Your task to perform on an android device: add a contact in the contacts app Image 0: 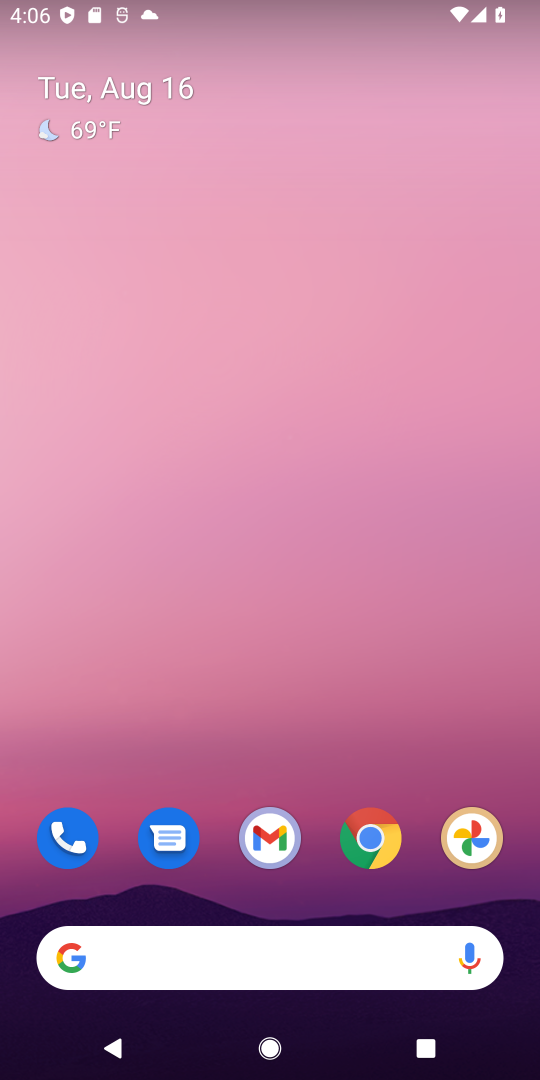
Step 0: drag from (258, 925) to (310, 488)
Your task to perform on an android device: add a contact in the contacts app Image 1: 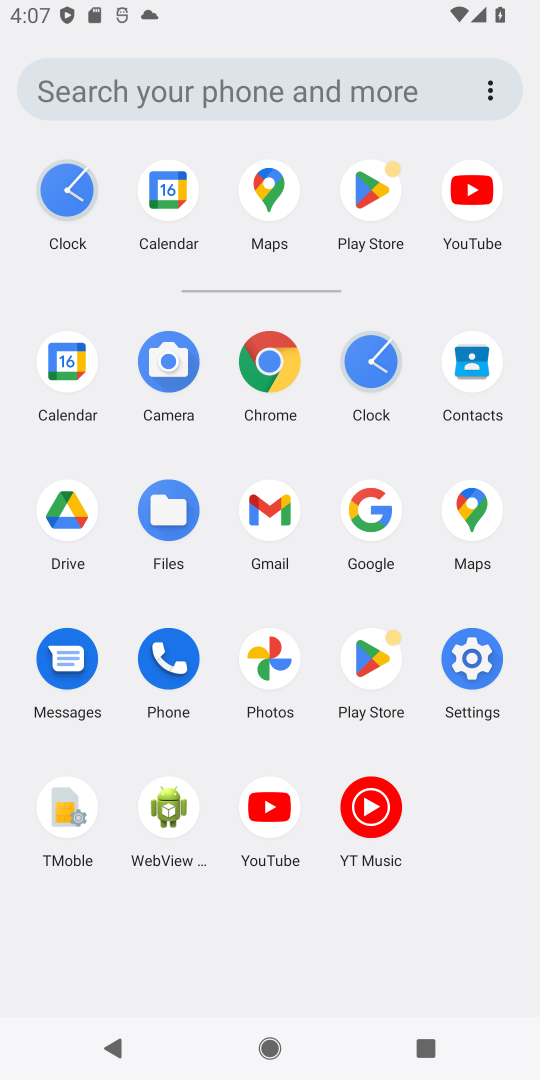
Step 1: click (491, 372)
Your task to perform on an android device: add a contact in the contacts app Image 2: 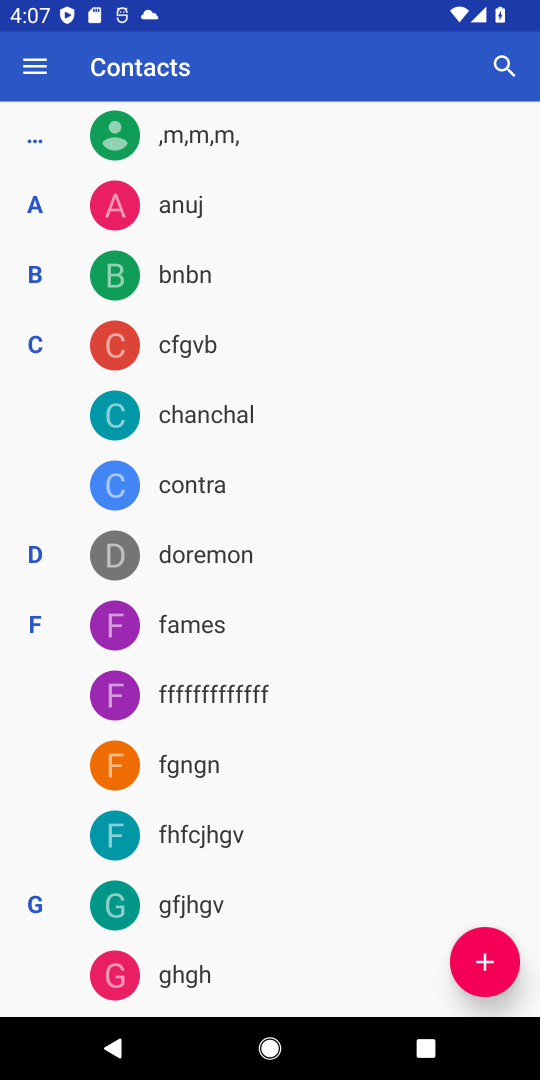
Step 2: click (491, 962)
Your task to perform on an android device: add a contact in the contacts app Image 3: 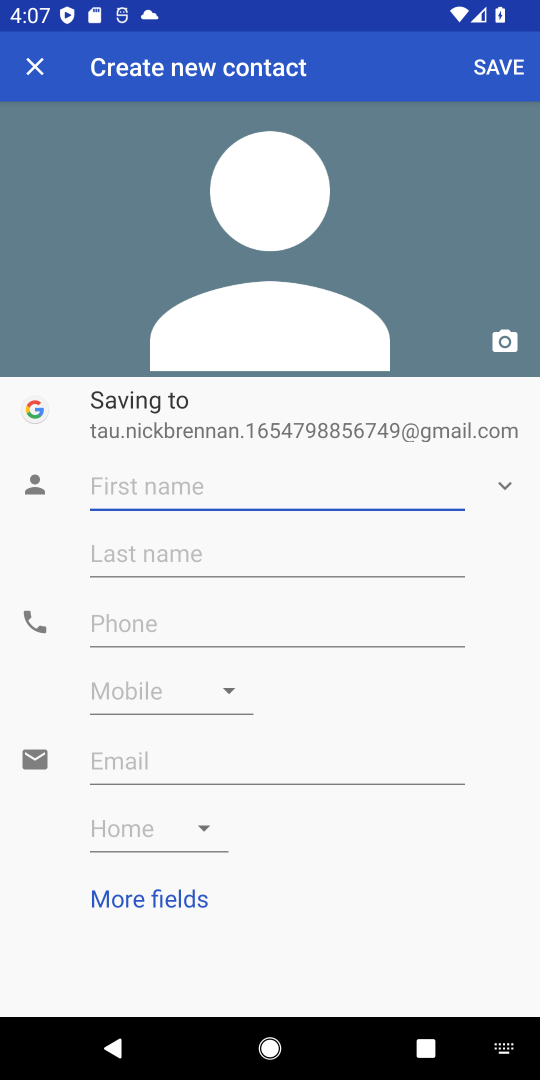
Step 3: type "cvvnfgnf"
Your task to perform on an android device: add a contact in the contacts app Image 4: 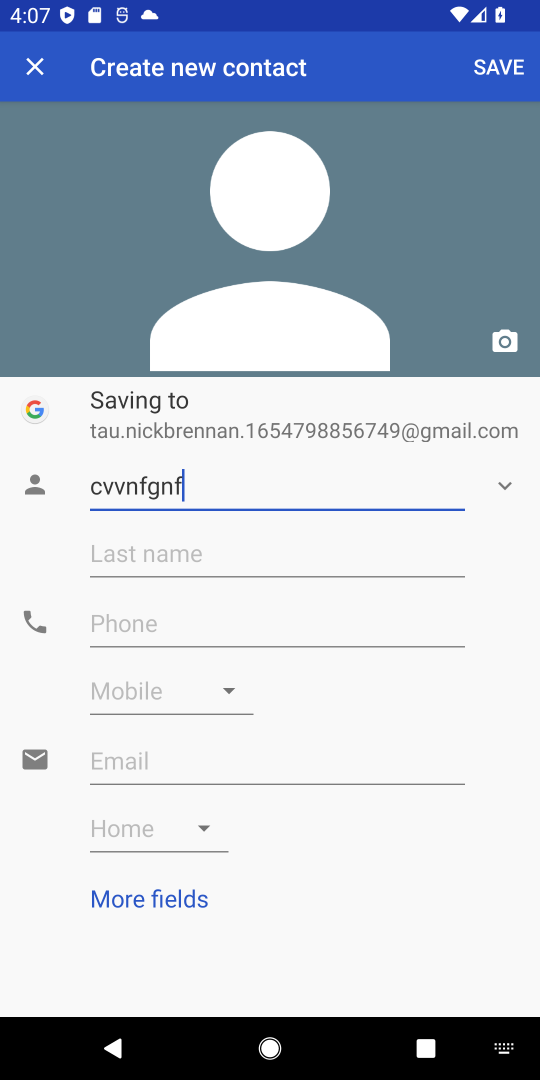
Step 4: click (286, 645)
Your task to perform on an android device: add a contact in the contacts app Image 5: 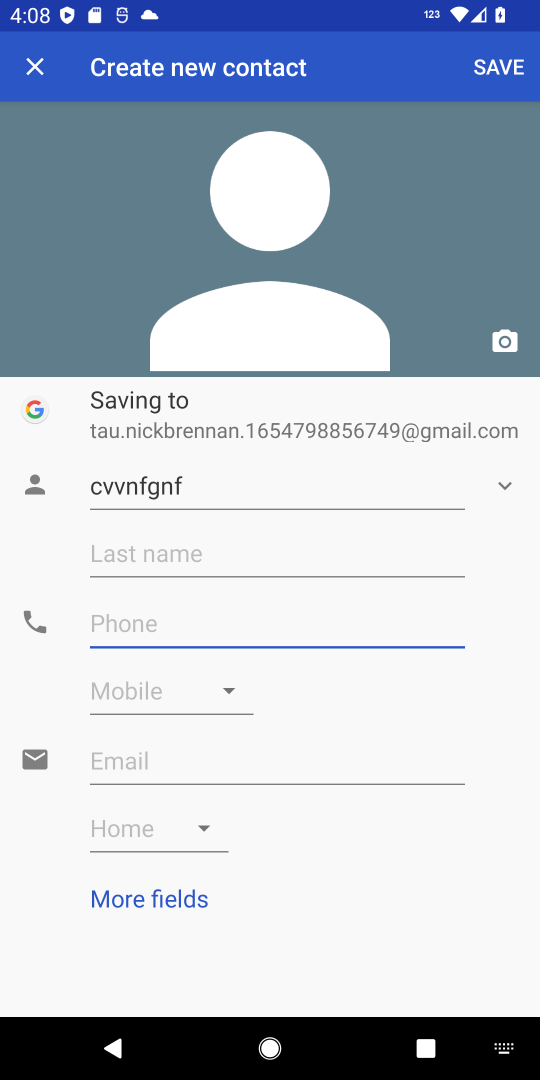
Step 5: type "4574765"
Your task to perform on an android device: add a contact in the contacts app Image 6: 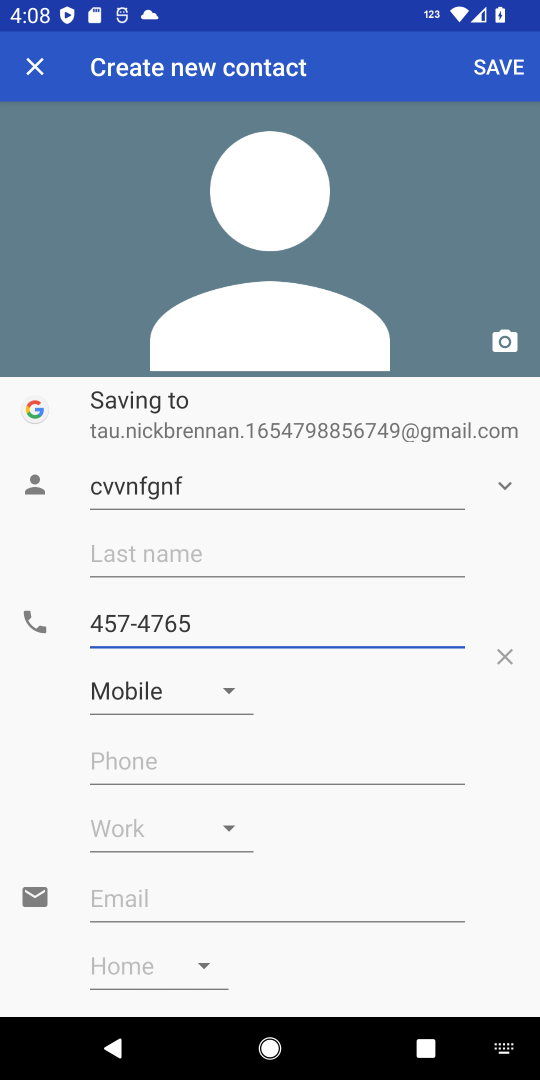
Step 6: click (501, 75)
Your task to perform on an android device: add a contact in the contacts app Image 7: 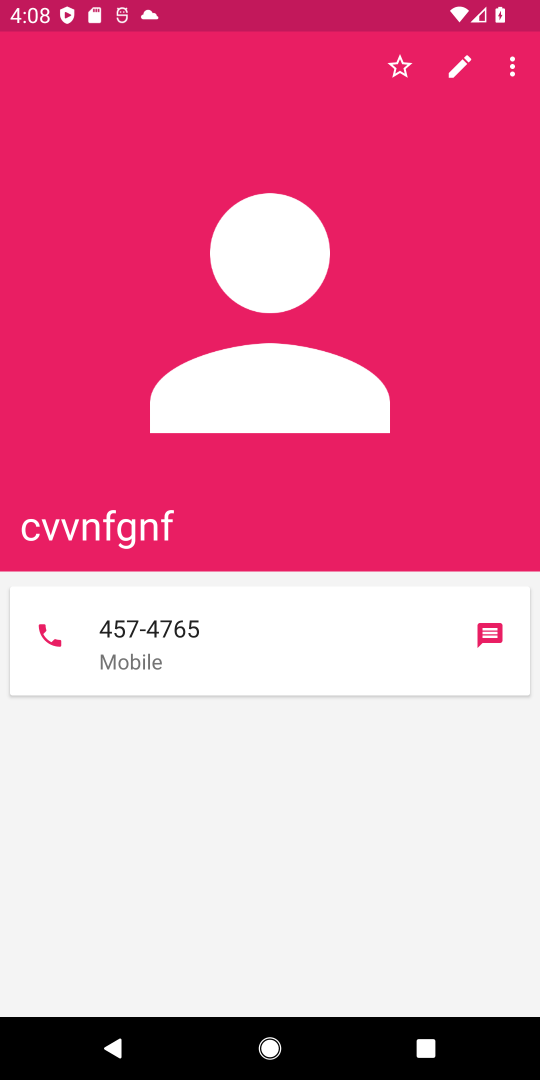
Step 7: task complete